Your task to perform on an android device: check google app version Image 0: 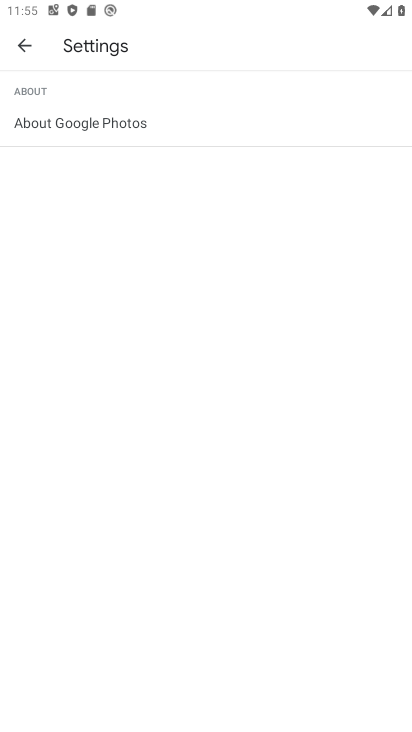
Step 0: press home button
Your task to perform on an android device: check google app version Image 1: 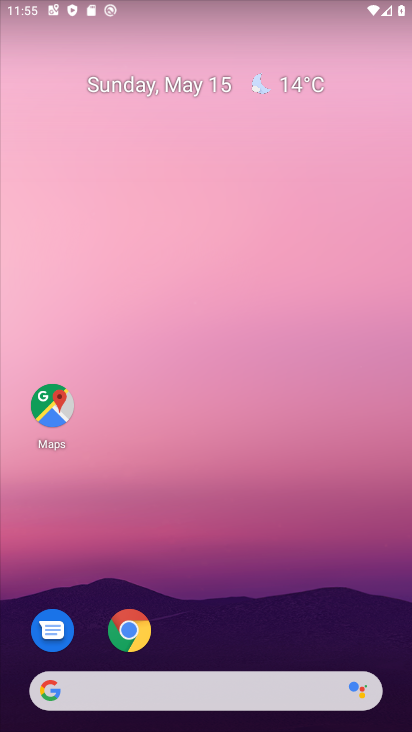
Step 1: drag from (258, 585) to (308, 91)
Your task to perform on an android device: check google app version Image 2: 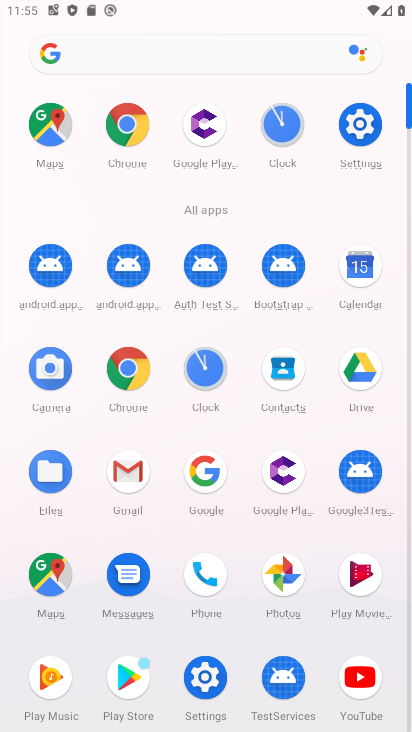
Step 2: click (113, 126)
Your task to perform on an android device: check google app version Image 3: 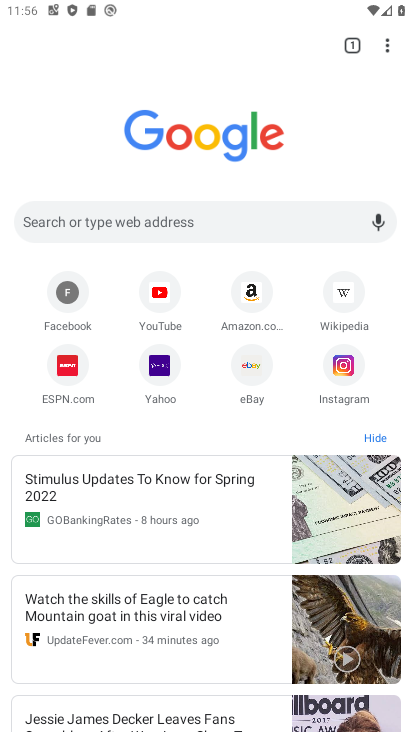
Step 3: click (393, 44)
Your task to perform on an android device: check google app version Image 4: 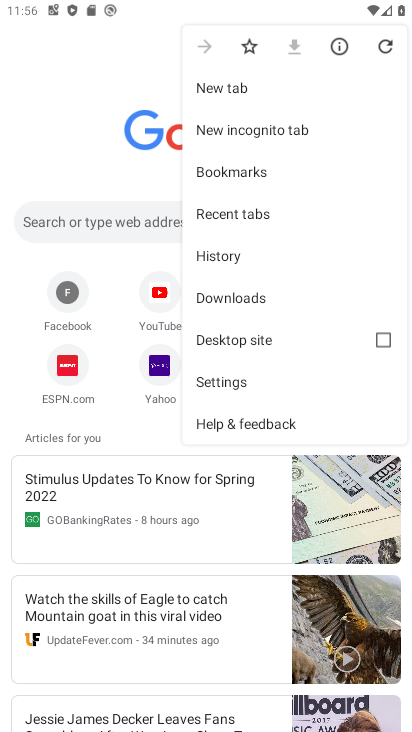
Step 4: click (292, 424)
Your task to perform on an android device: check google app version Image 5: 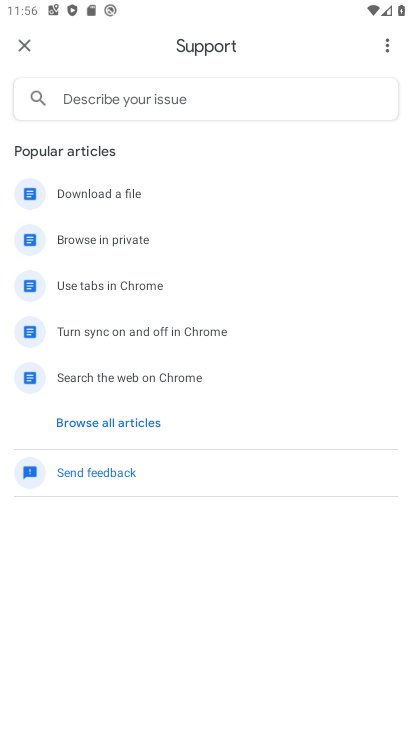
Step 5: click (388, 39)
Your task to perform on an android device: check google app version Image 6: 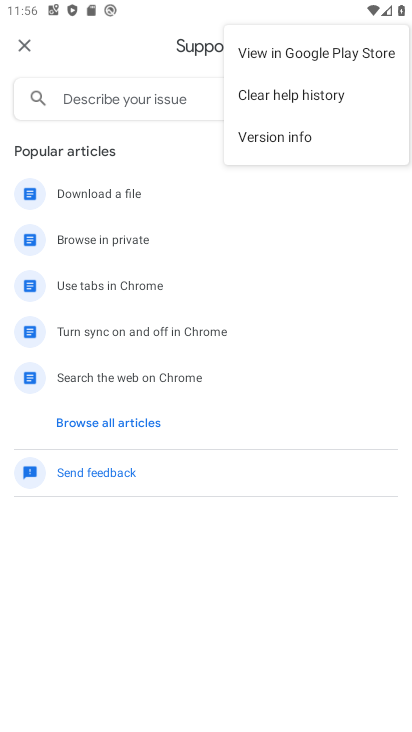
Step 6: click (359, 138)
Your task to perform on an android device: check google app version Image 7: 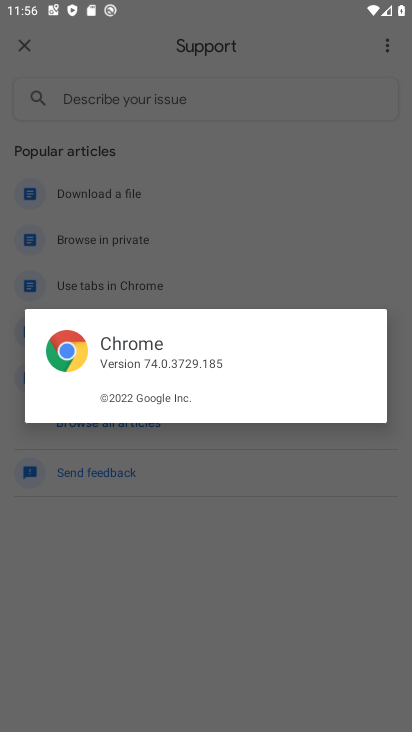
Step 7: task complete